Your task to perform on an android device: View the shopping cart on costco. Search for "usb-b" on costco, select the first entry, and add it to the cart. Image 0: 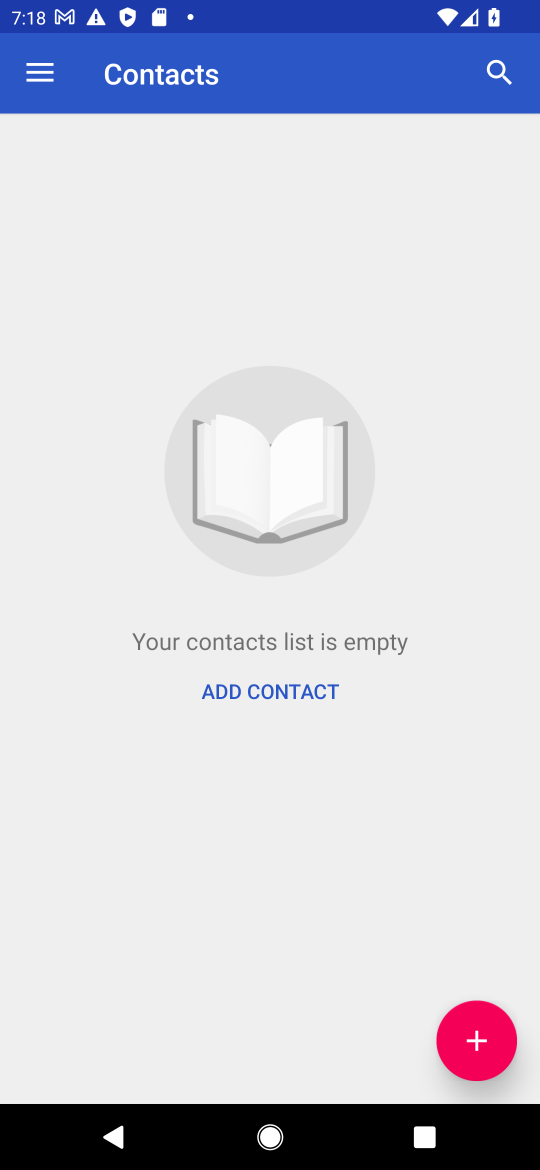
Step 0: press home button
Your task to perform on an android device: View the shopping cart on costco. Search for "usb-b" on costco, select the first entry, and add it to the cart. Image 1: 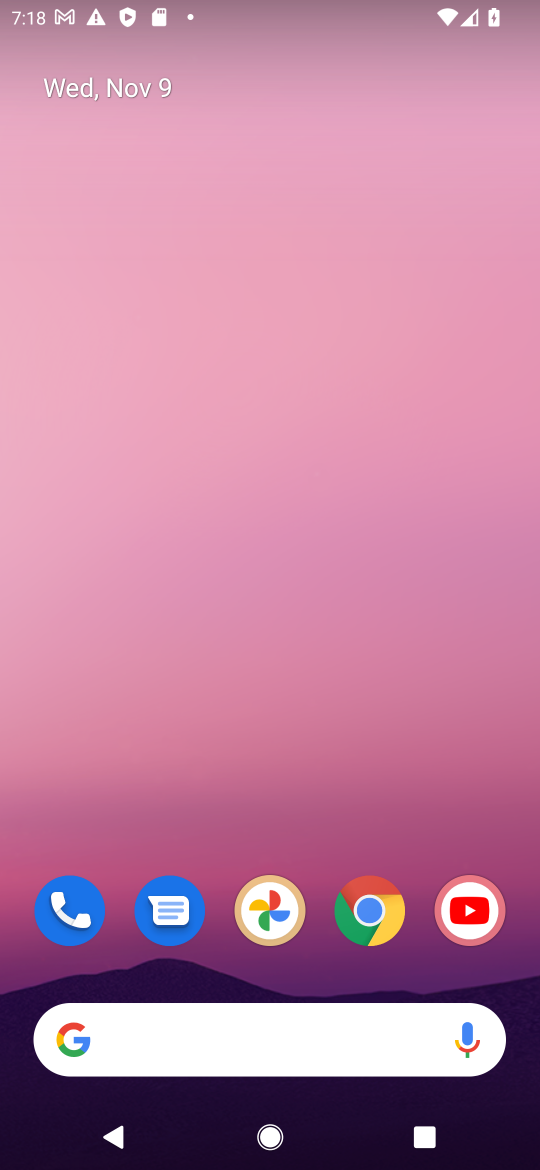
Step 1: click (366, 905)
Your task to perform on an android device: View the shopping cart on costco. Search for "usb-b" on costco, select the first entry, and add it to the cart. Image 2: 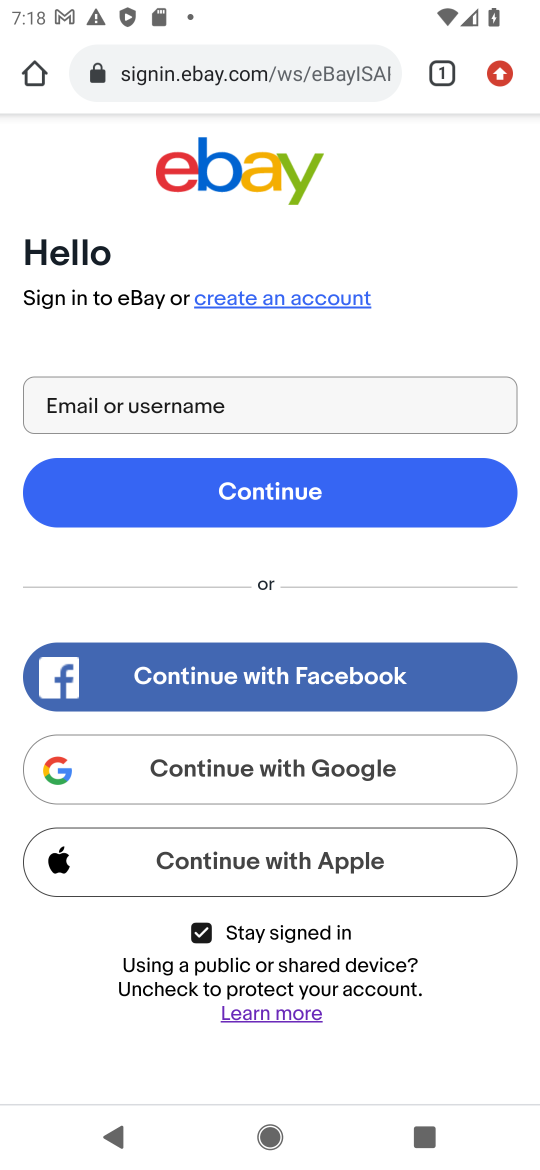
Step 2: click (220, 81)
Your task to perform on an android device: View the shopping cart on costco. Search for "usb-b" on costco, select the first entry, and add it to the cart. Image 3: 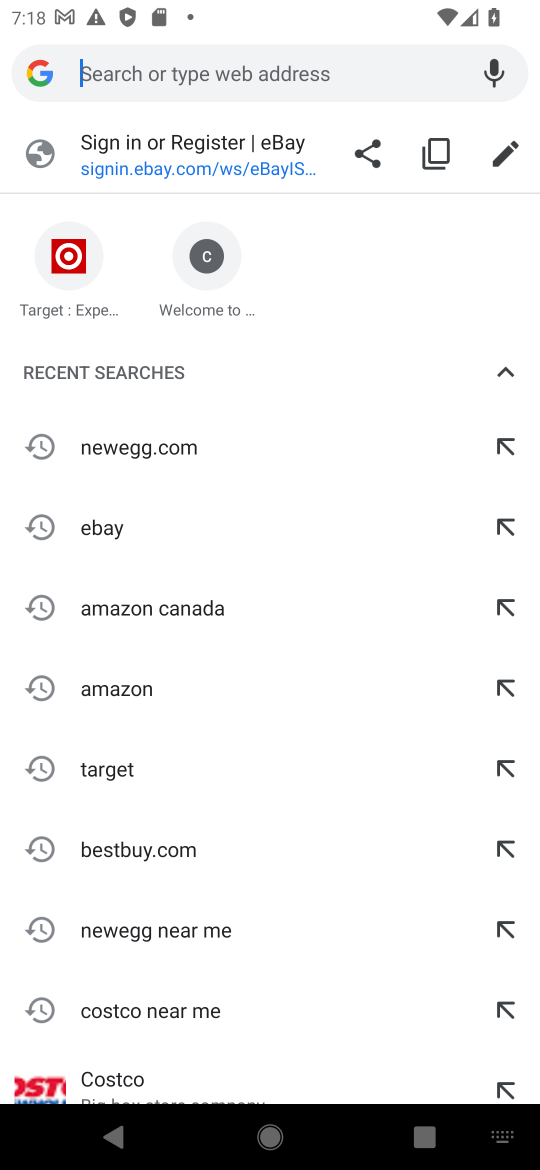
Step 3: click (94, 1077)
Your task to perform on an android device: View the shopping cart on costco. Search for "usb-b" on costco, select the first entry, and add it to the cart. Image 4: 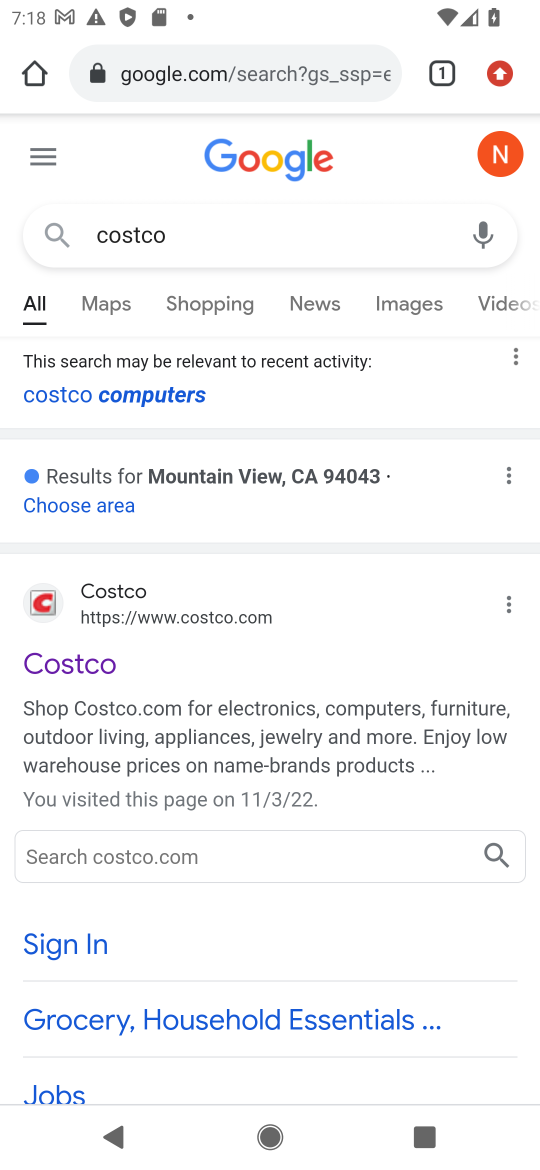
Step 4: click (88, 684)
Your task to perform on an android device: View the shopping cart on costco. Search for "usb-b" on costco, select the first entry, and add it to the cart. Image 5: 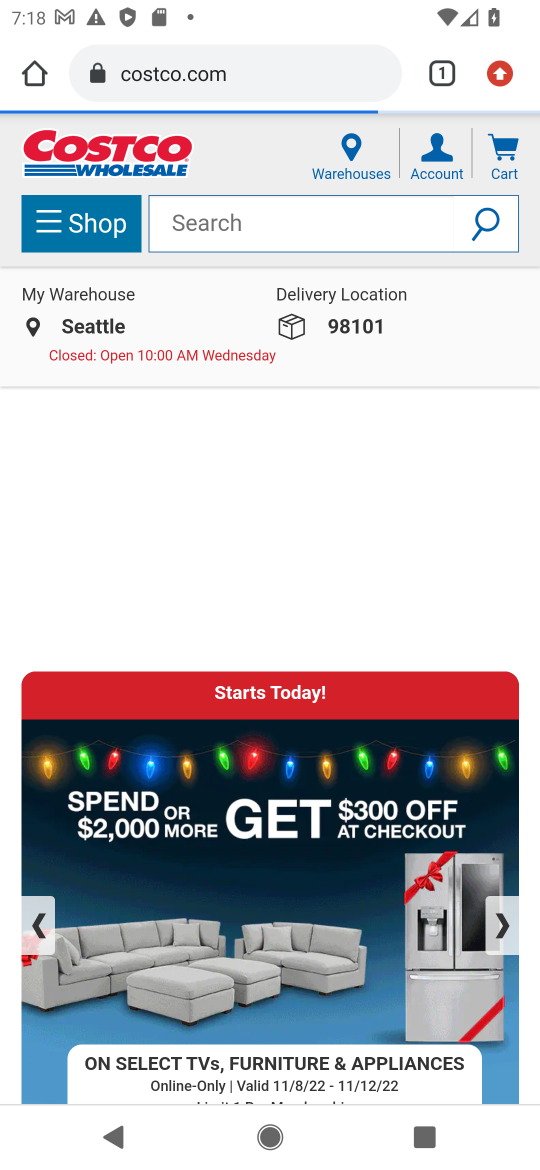
Step 5: click (507, 153)
Your task to perform on an android device: View the shopping cart on costco. Search for "usb-b" on costco, select the first entry, and add it to the cart. Image 6: 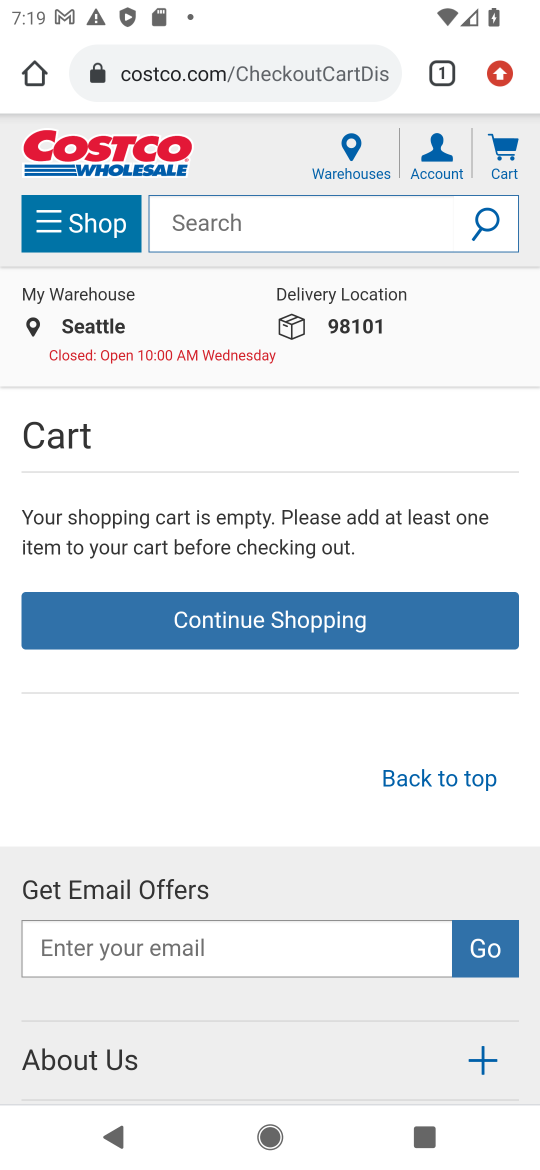
Step 6: click (277, 234)
Your task to perform on an android device: View the shopping cart on costco. Search for "usb-b" on costco, select the first entry, and add it to the cart. Image 7: 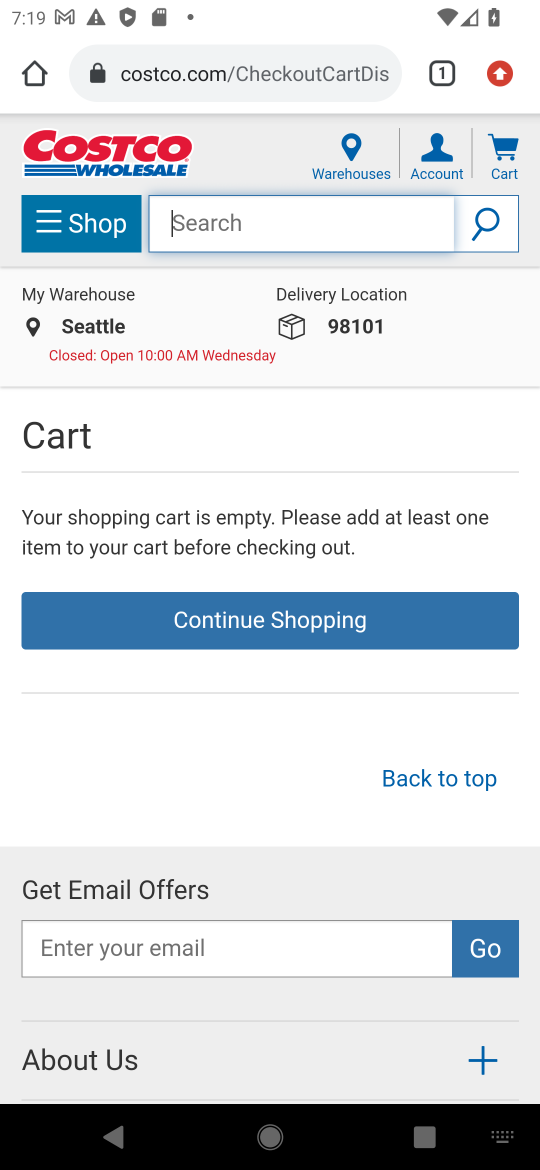
Step 7: type "usb-b"
Your task to perform on an android device: View the shopping cart on costco. Search for "usb-b" on costco, select the first entry, and add it to the cart. Image 8: 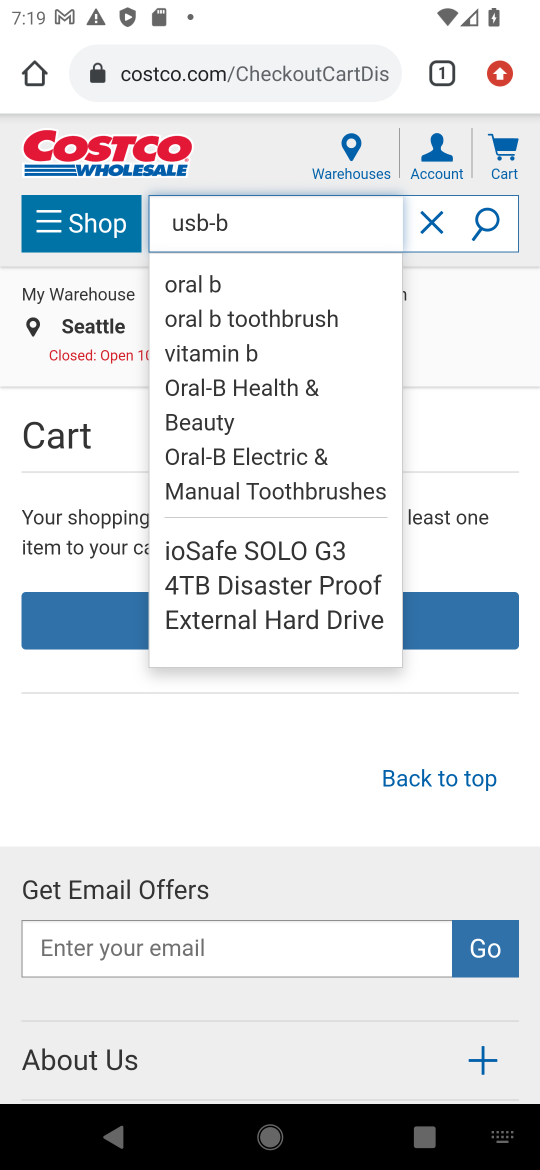
Step 8: click (489, 210)
Your task to perform on an android device: View the shopping cart on costco. Search for "usb-b" on costco, select the first entry, and add it to the cart. Image 9: 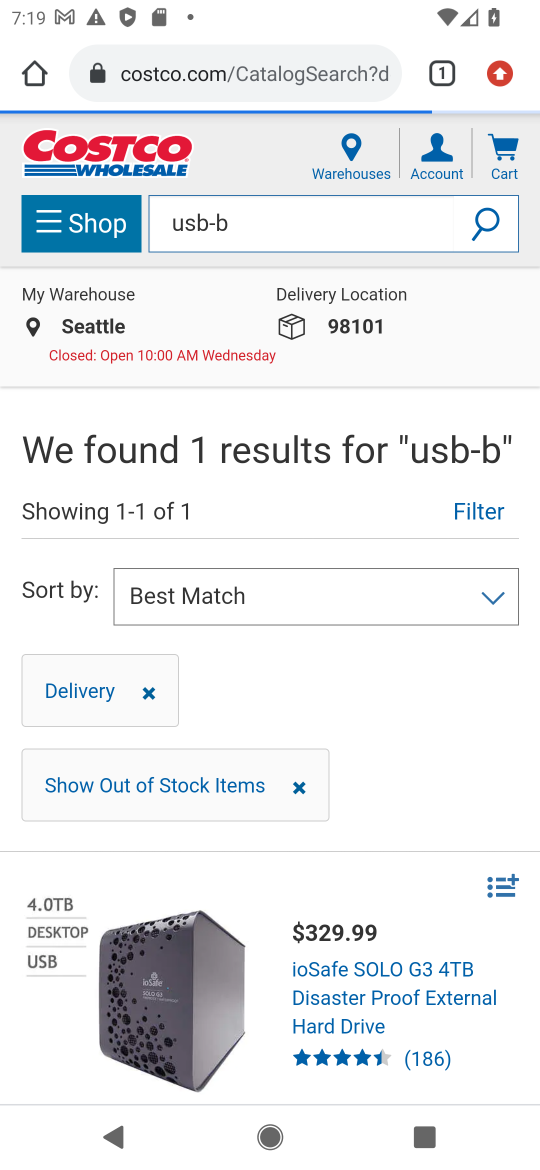
Step 9: task complete